Your task to perform on an android device: turn off wifi Image 0: 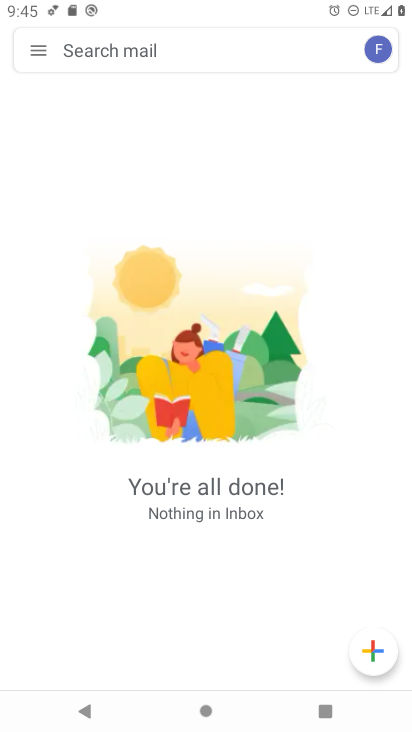
Step 0: press home button
Your task to perform on an android device: turn off wifi Image 1: 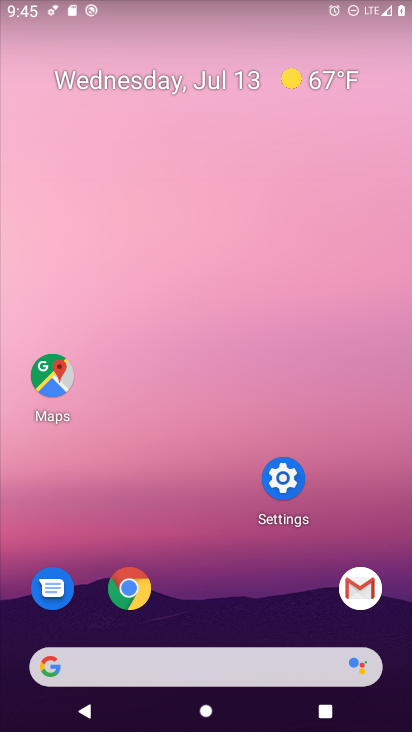
Step 1: click (159, 660)
Your task to perform on an android device: turn off wifi Image 2: 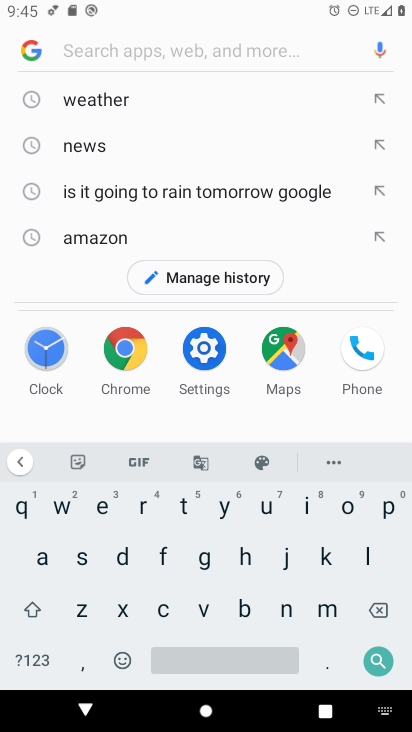
Step 2: press home button
Your task to perform on an android device: turn off wifi Image 3: 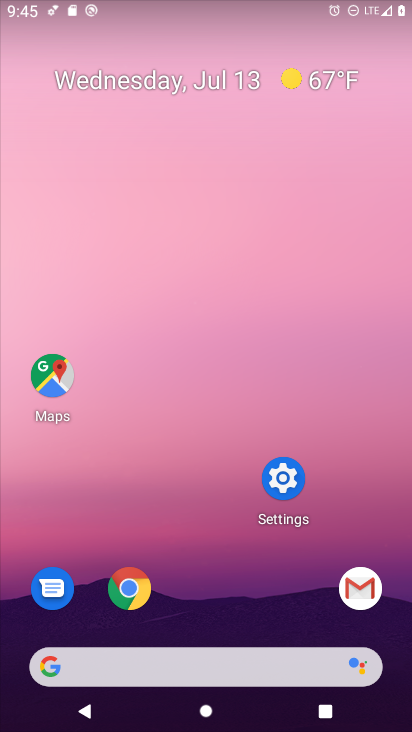
Step 3: click (284, 495)
Your task to perform on an android device: turn off wifi Image 4: 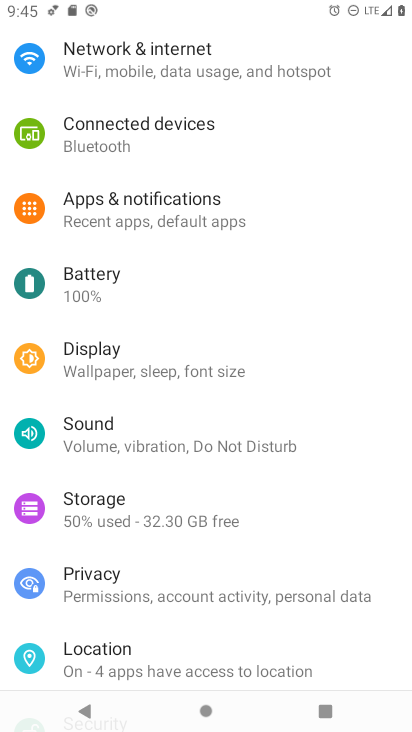
Step 4: click (135, 86)
Your task to perform on an android device: turn off wifi Image 5: 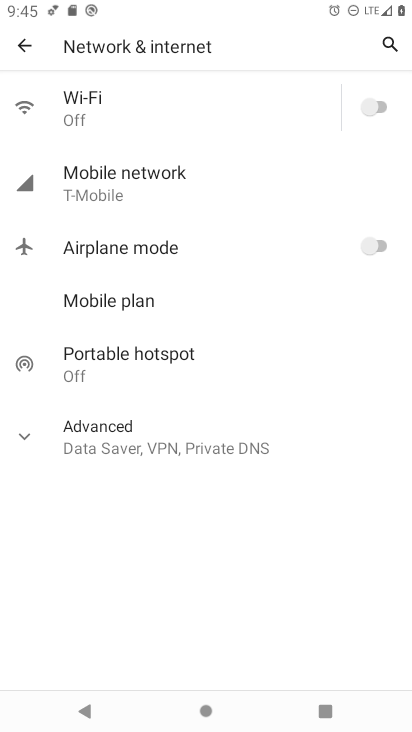
Step 5: click (127, 105)
Your task to perform on an android device: turn off wifi Image 6: 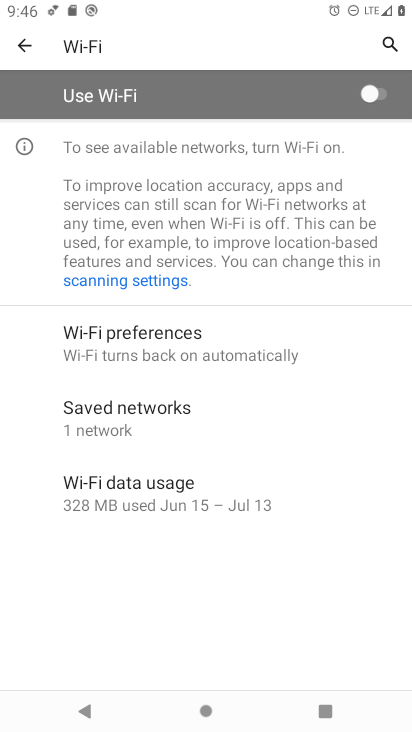
Step 6: click (350, 107)
Your task to perform on an android device: turn off wifi Image 7: 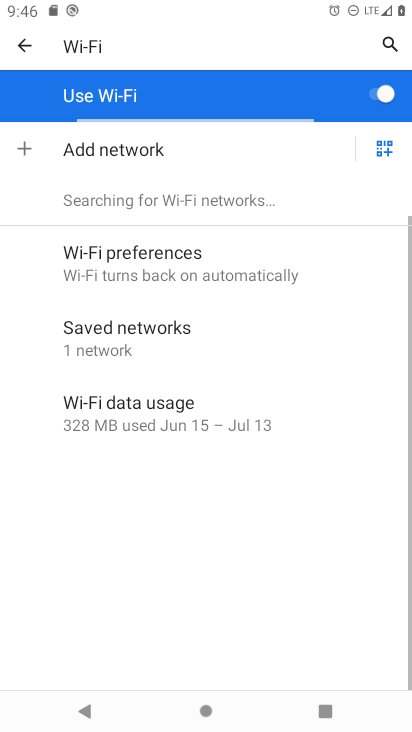
Step 7: click (350, 107)
Your task to perform on an android device: turn off wifi Image 8: 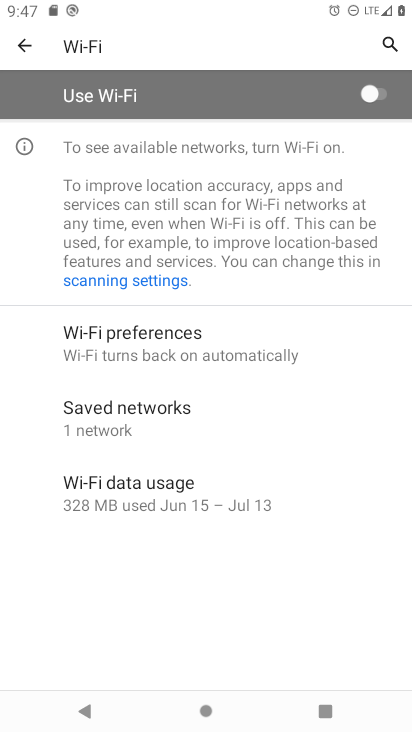
Step 8: task complete